Your task to perform on an android device: Open notification settings Image 0: 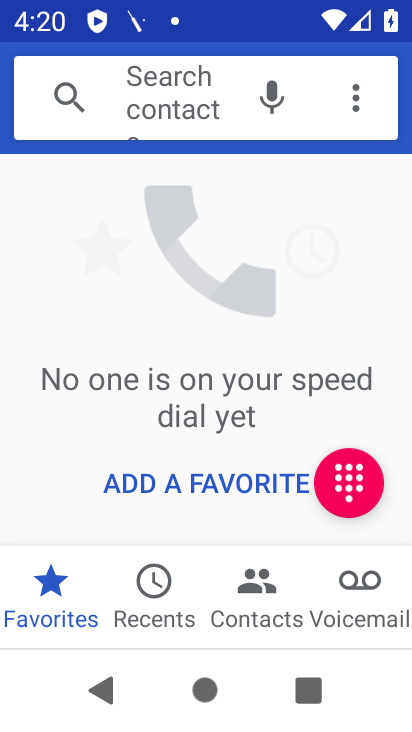
Step 0: press home button
Your task to perform on an android device: Open notification settings Image 1: 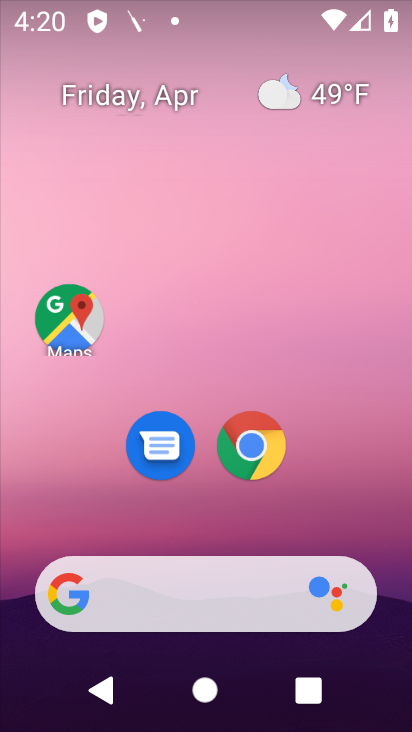
Step 1: drag from (352, 527) to (398, 126)
Your task to perform on an android device: Open notification settings Image 2: 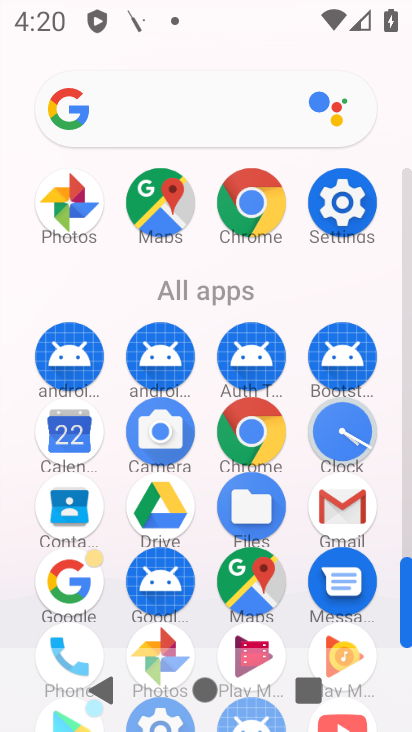
Step 2: click (336, 212)
Your task to perform on an android device: Open notification settings Image 3: 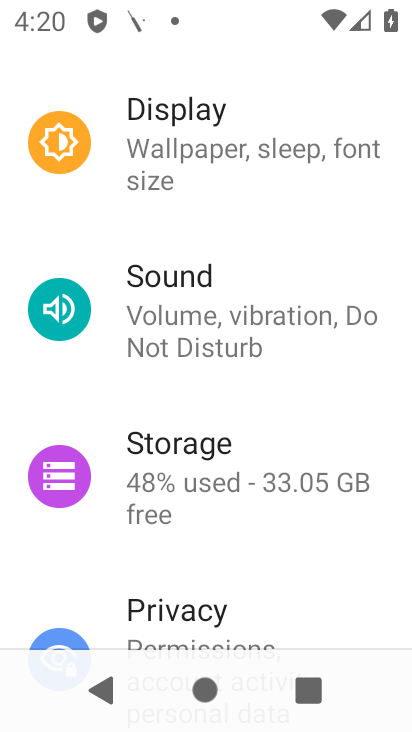
Step 3: drag from (260, 213) to (244, 564)
Your task to perform on an android device: Open notification settings Image 4: 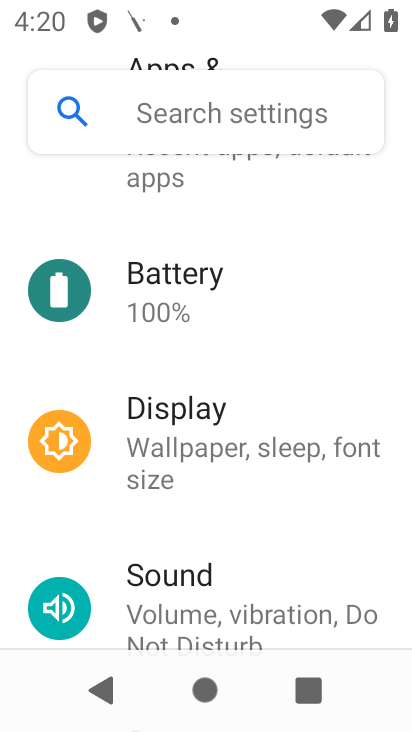
Step 4: drag from (252, 244) to (221, 556)
Your task to perform on an android device: Open notification settings Image 5: 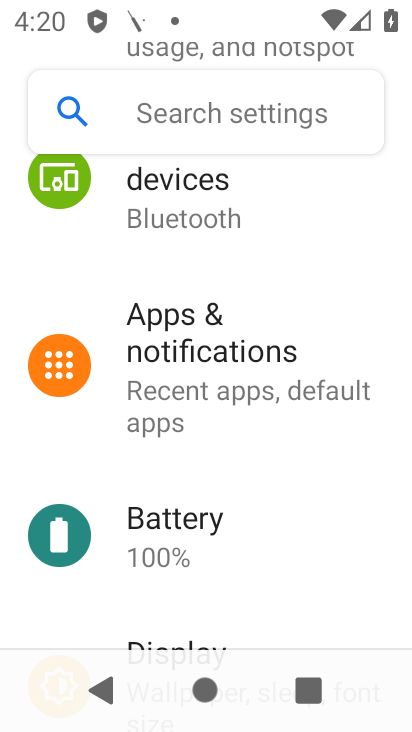
Step 5: drag from (253, 270) to (222, 517)
Your task to perform on an android device: Open notification settings Image 6: 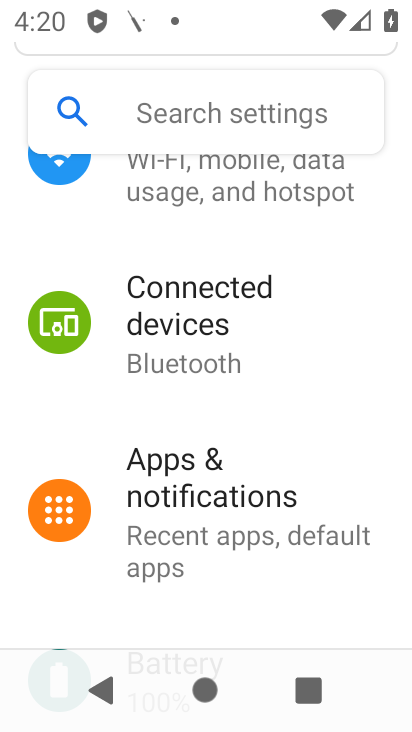
Step 6: click (190, 494)
Your task to perform on an android device: Open notification settings Image 7: 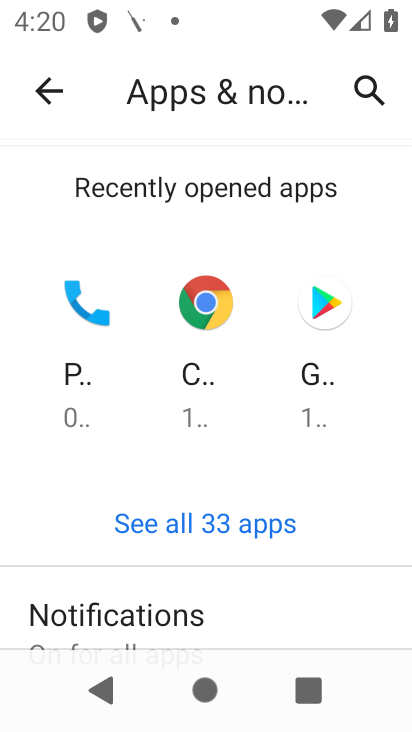
Step 7: click (201, 620)
Your task to perform on an android device: Open notification settings Image 8: 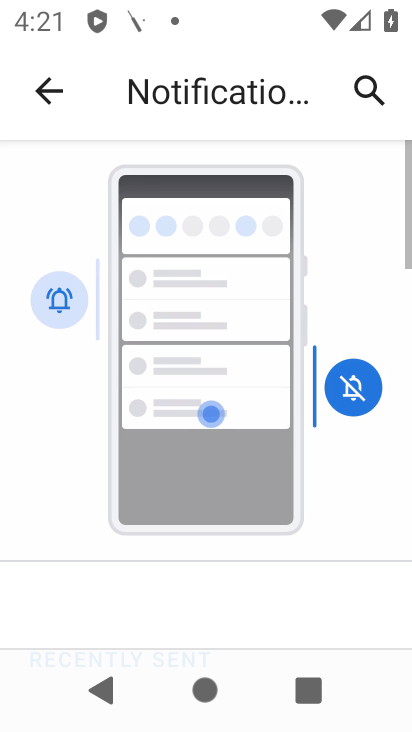
Step 8: task complete